Your task to perform on an android device: see sites visited before in the chrome app Image 0: 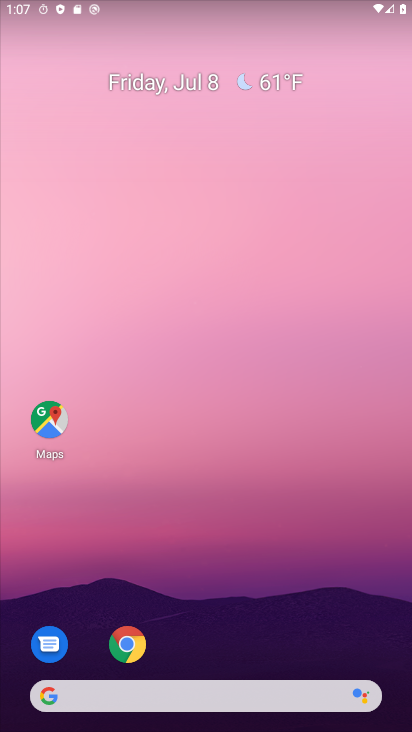
Step 0: drag from (228, 469) to (267, 41)
Your task to perform on an android device: see sites visited before in the chrome app Image 1: 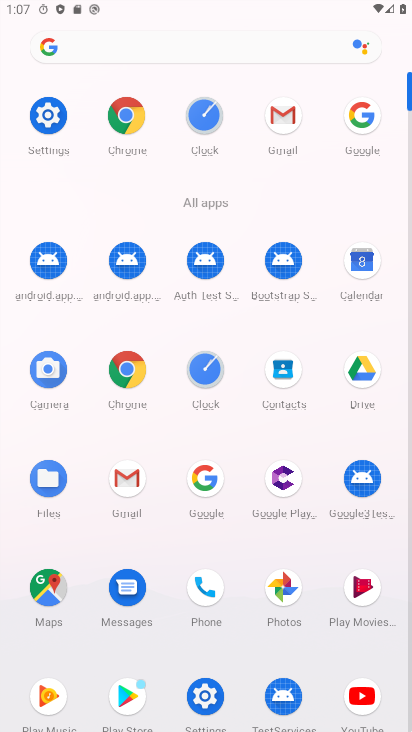
Step 1: click (133, 112)
Your task to perform on an android device: see sites visited before in the chrome app Image 2: 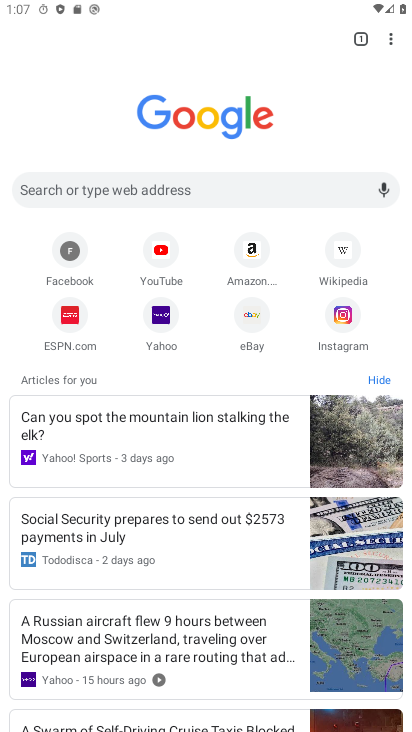
Step 2: click (391, 37)
Your task to perform on an android device: see sites visited before in the chrome app Image 3: 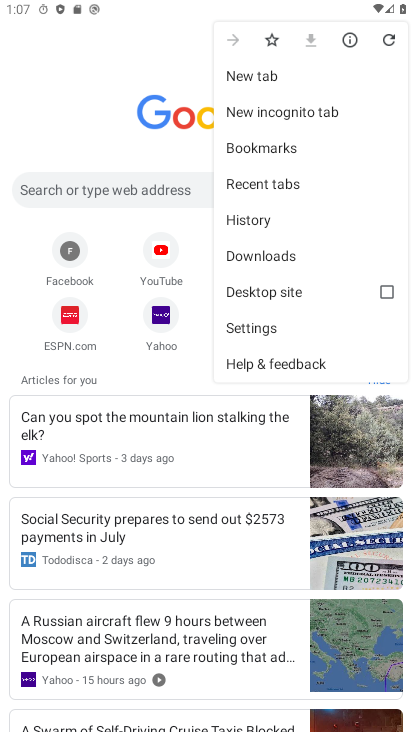
Step 3: click (263, 216)
Your task to perform on an android device: see sites visited before in the chrome app Image 4: 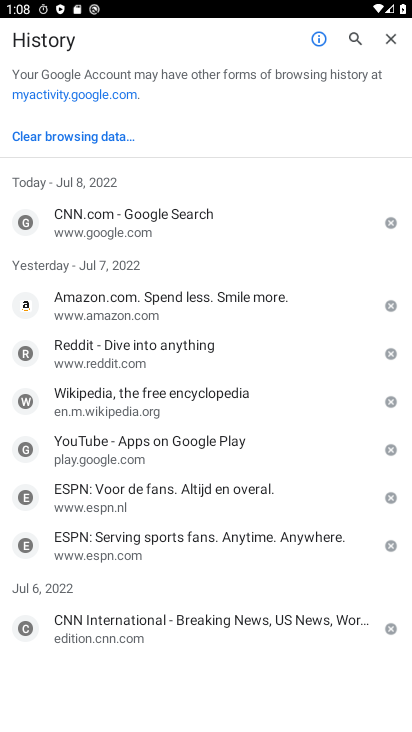
Step 4: task complete